Your task to perform on an android device: Open maps Image 0: 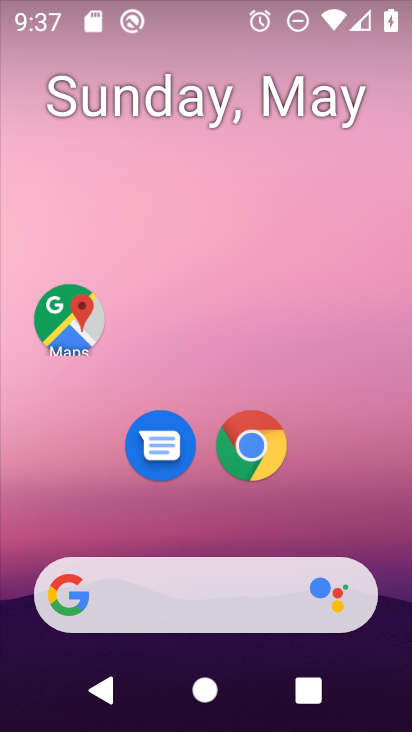
Step 0: drag from (246, 551) to (290, 297)
Your task to perform on an android device: Open maps Image 1: 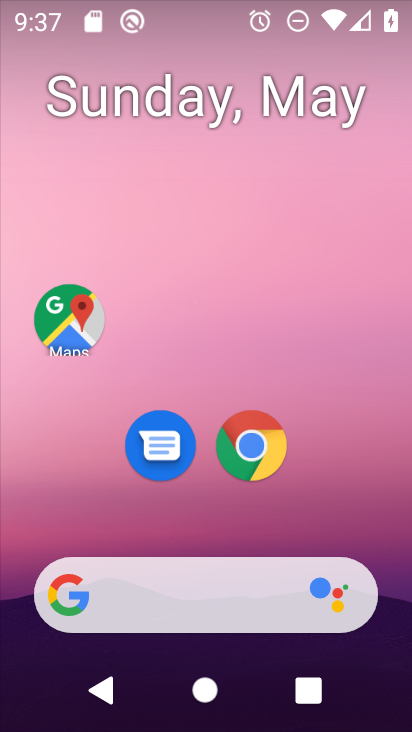
Step 1: drag from (268, 527) to (296, 323)
Your task to perform on an android device: Open maps Image 2: 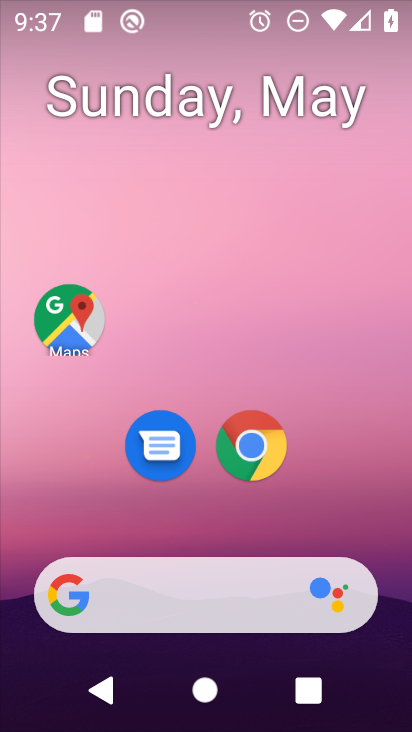
Step 2: drag from (293, 545) to (283, 242)
Your task to perform on an android device: Open maps Image 3: 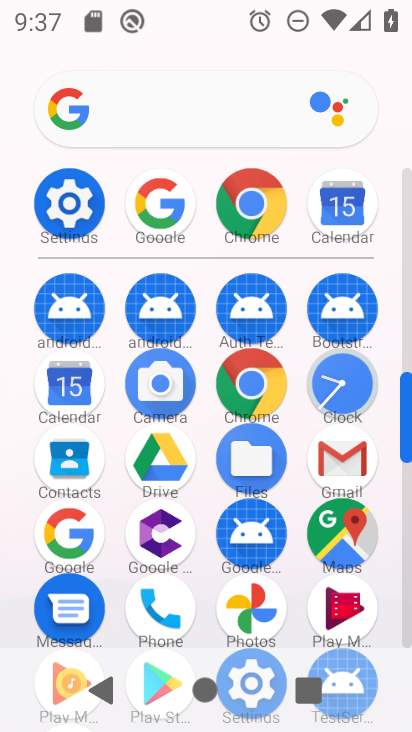
Step 3: click (352, 519)
Your task to perform on an android device: Open maps Image 4: 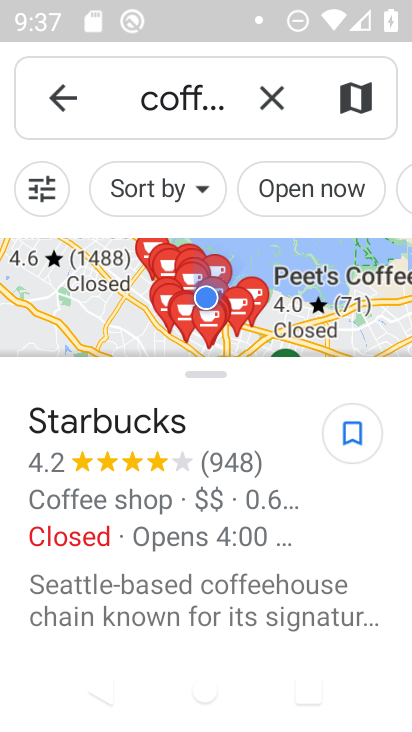
Step 4: task complete